Your task to perform on an android device: Do I have any events today? Image 0: 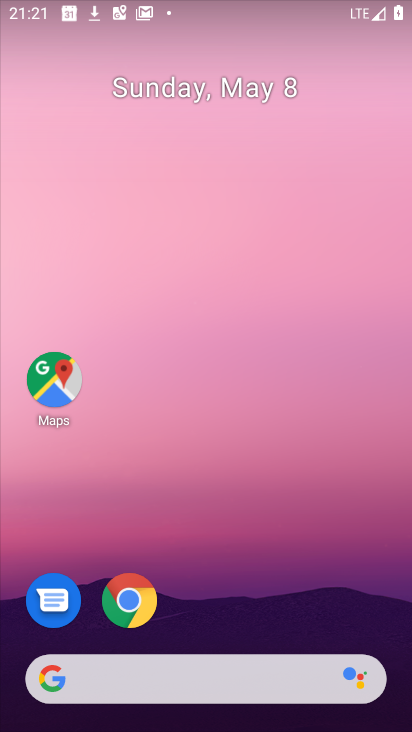
Step 0: drag from (272, 709) to (189, 265)
Your task to perform on an android device: Do I have any events today? Image 1: 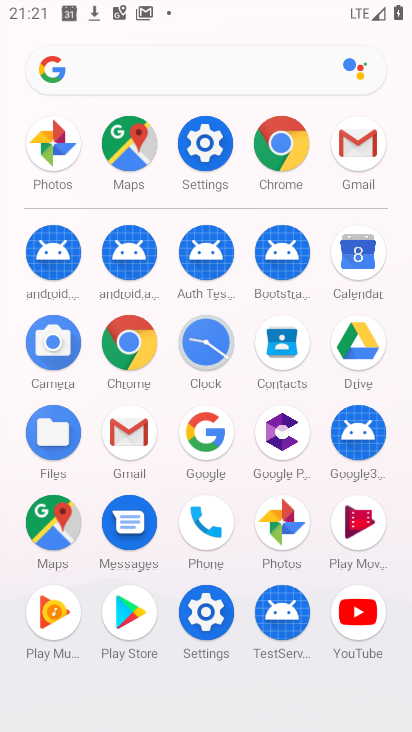
Step 1: click (169, 78)
Your task to perform on an android device: Do I have any events today? Image 2: 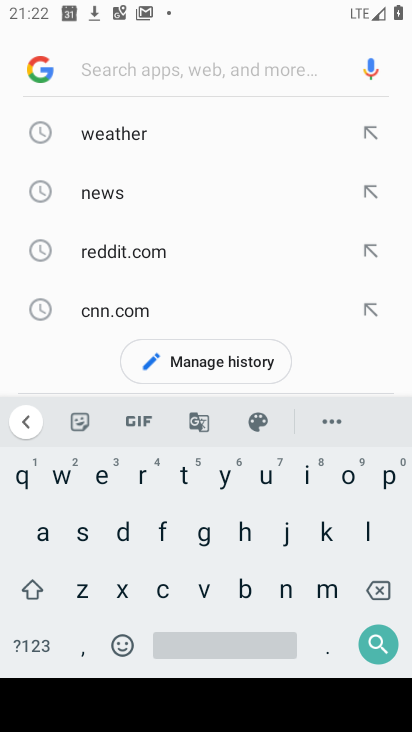
Step 2: press home button
Your task to perform on an android device: Do I have any events today? Image 3: 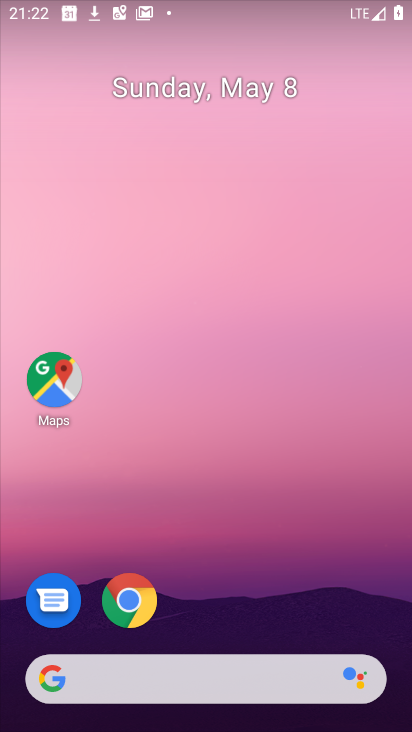
Step 3: drag from (261, 708) to (174, 200)
Your task to perform on an android device: Do I have any events today? Image 4: 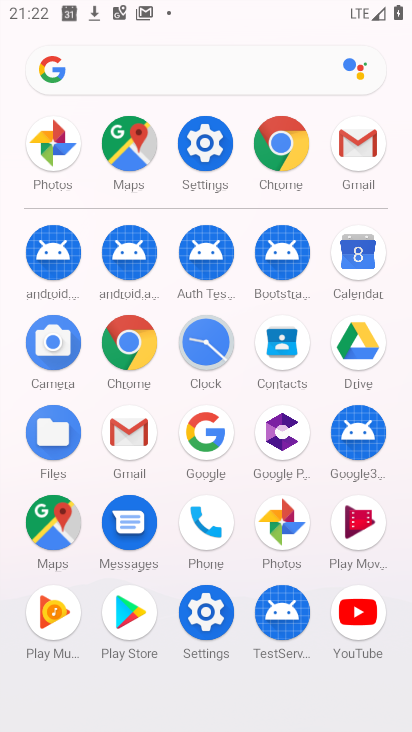
Step 4: click (354, 268)
Your task to perform on an android device: Do I have any events today? Image 5: 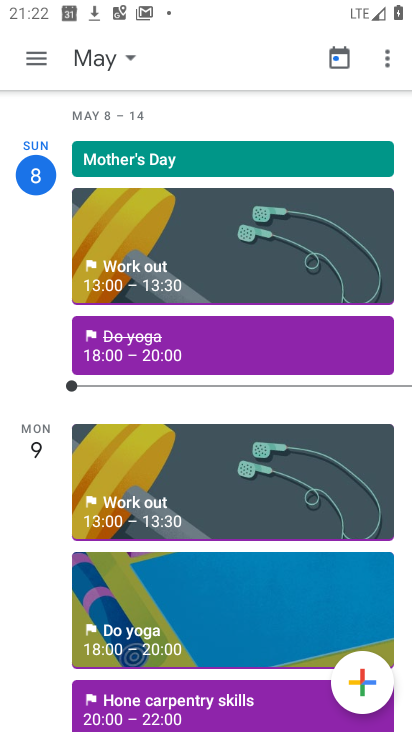
Step 5: task complete